Your task to perform on an android device: change notifications settings Image 0: 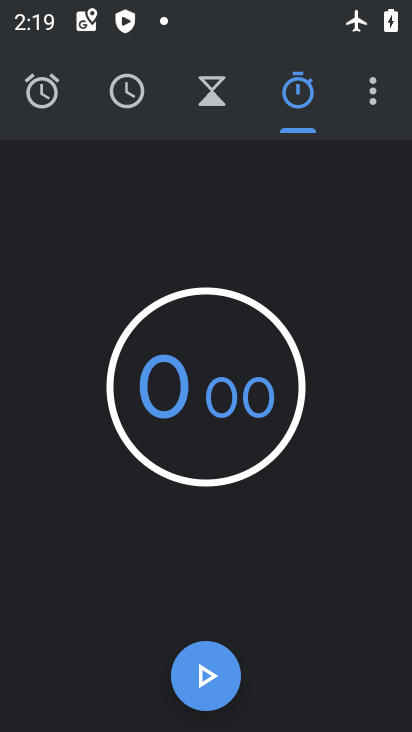
Step 0: press home button
Your task to perform on an android device: change notifications settings Image 1: 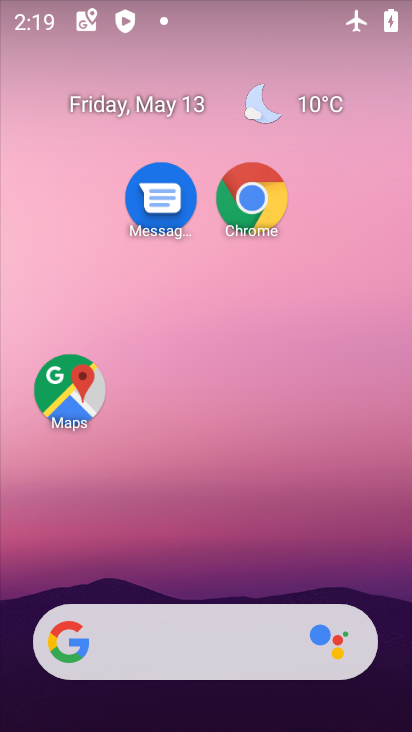
Step 1: drag from (228, 586) to (235, 15)
Your task to perform on an android device: change notifications settings Image 2: 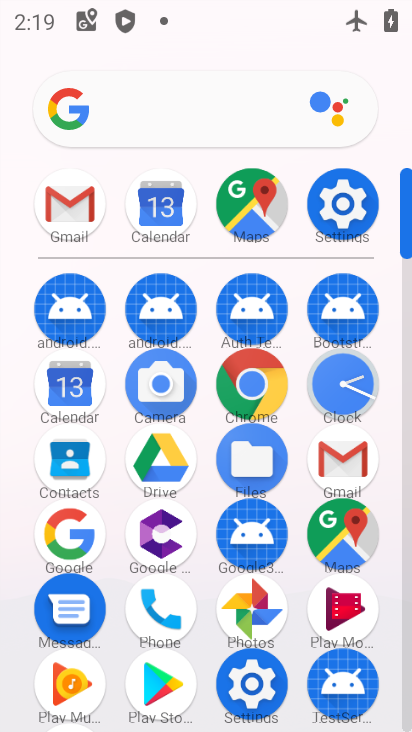
Step 2: click (334, 209)
Your task to perform on an android device: change notifications settings Image 3: 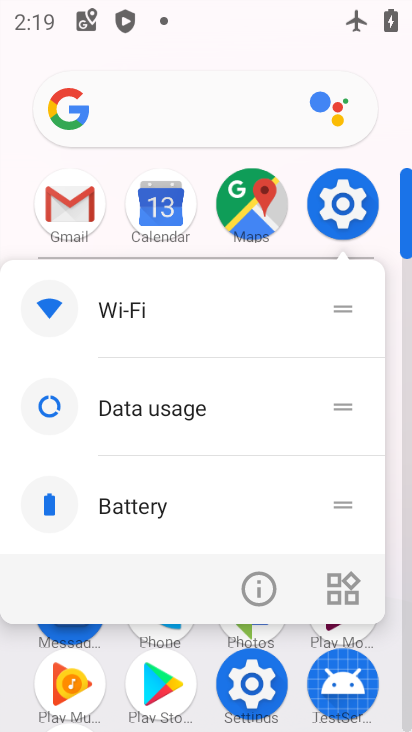
Step 3: click (330, 211)
Your task to perform on an android device: change notifications settings Image 4: 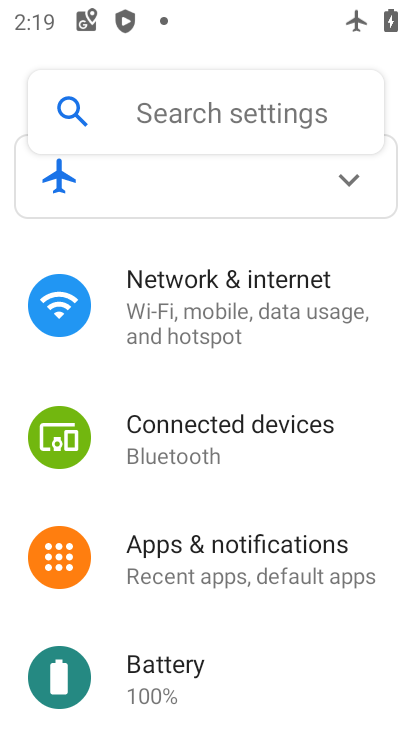
Step 4: click (230, 586)
Your task to perform on an android device: change notifications settings Image 5: 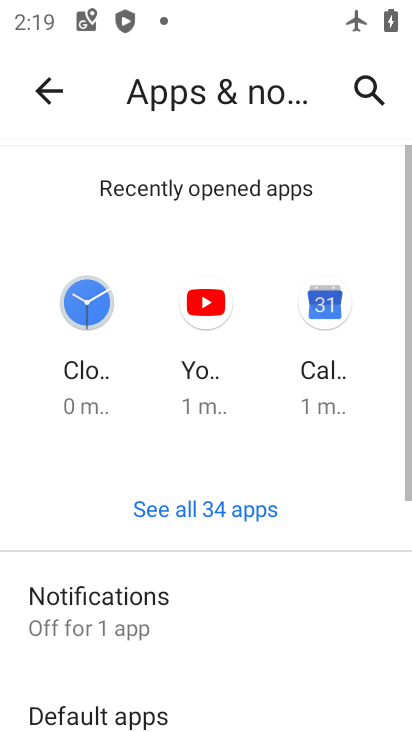
Step 5: click (141, 623)
Your task to perform on an android device: change notifications settings Image 6: 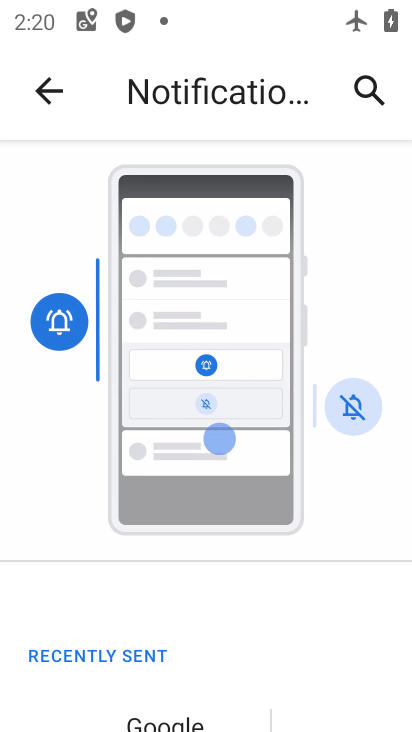
Step 6: drag from (204, 615) to (181, 76)
Your task to perform on an android device: change notifications settings Image 7: 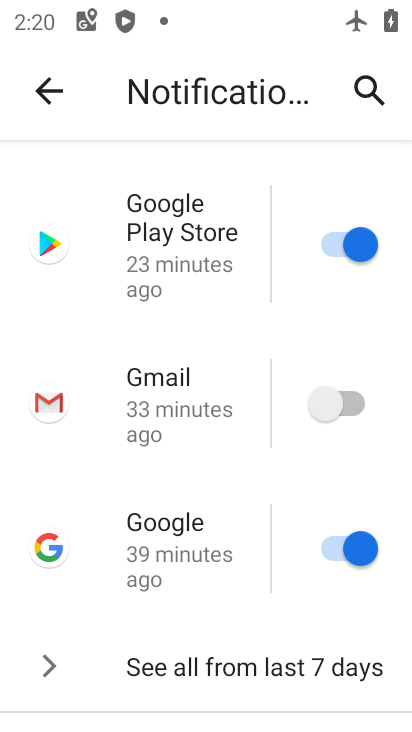
Step 7: click (188, 680)
Your task to perform on an android device: change notifications settings Image 8: 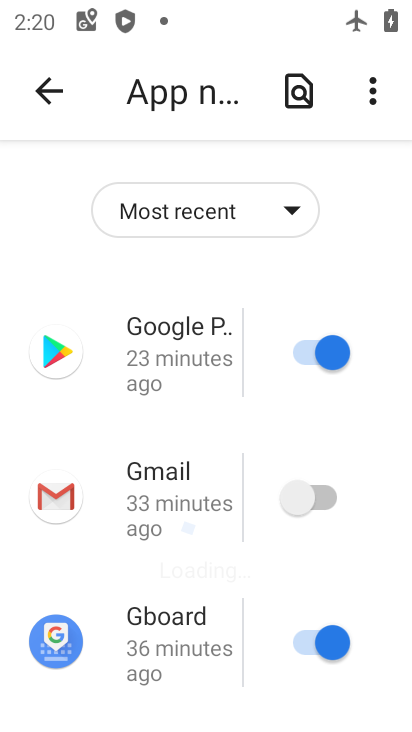
Step 8: click (271, 216)
Your task to perform on an android device: change notifications settings Image 9: 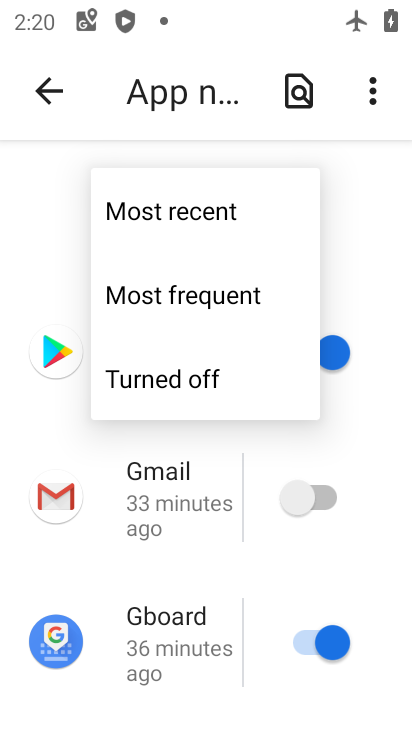
Step 9: click (214, 363)
Your task to perform on an android device: change notifications settings Image 10: 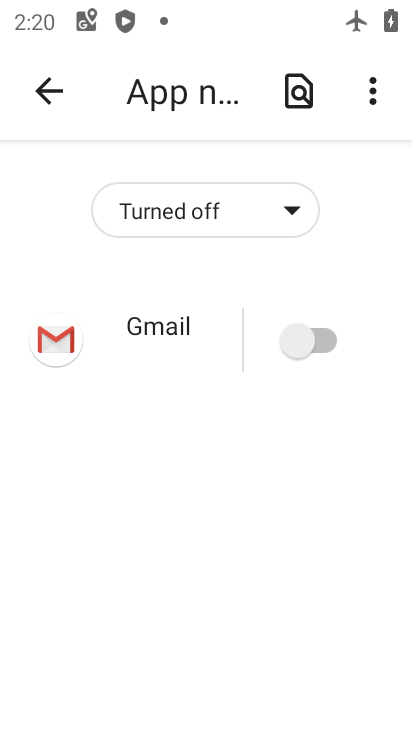
Step 10: task complete